Your task to perform on an android device: Search for vegetarian restaurants on Maps Image 0: 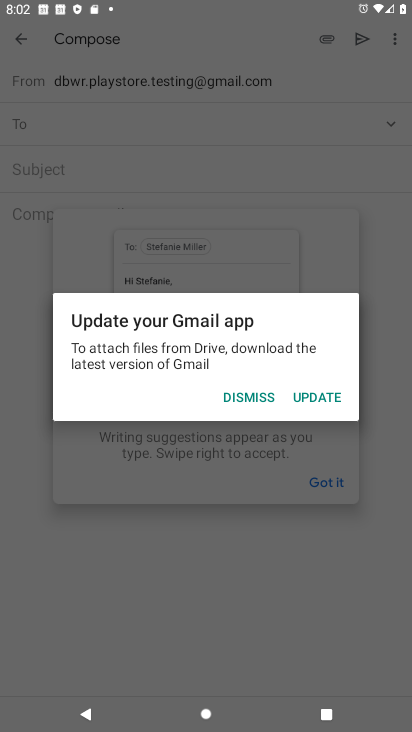
Step 0: press home button
Your task to perform on an android device: Search for vegetarian restaurants on Maps Image 1: 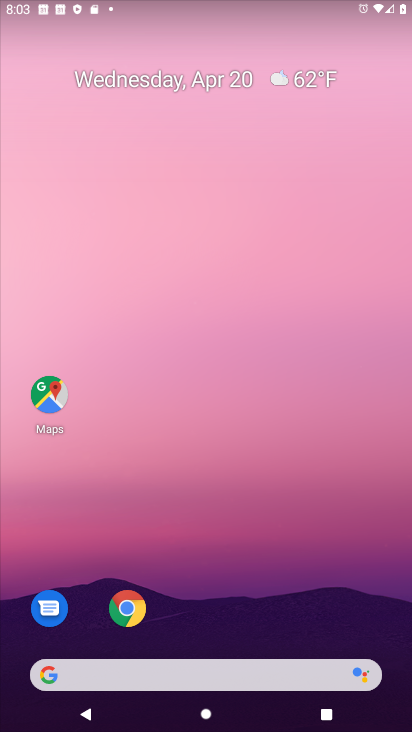
Step 1: click (54, 399)
Your task to perform on an android device: Search for vegetarian restaurants on Maps Image 2: 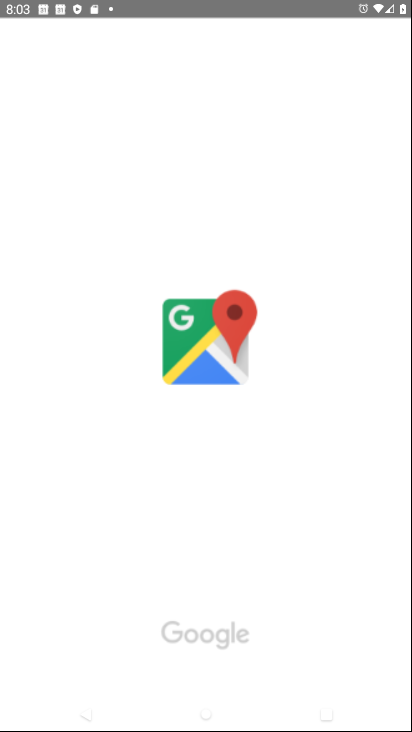
Step 2: click (273, 485)
Your task to perform on an android device: Search for vegetarian restaurants on Maps Image 3: 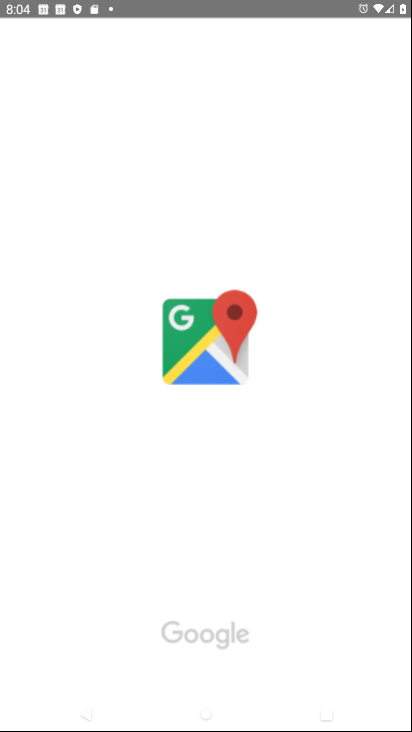
Step 3: task complete